Your task to perform on an android device: turn off smart reply in the gmail app Image 0: 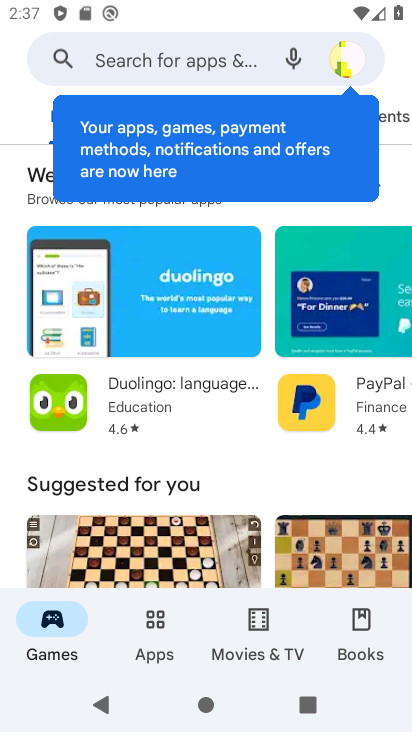
Step 0: press back button
Your task to perform on an android device: turn off smart reply in the gmail app Image 1: 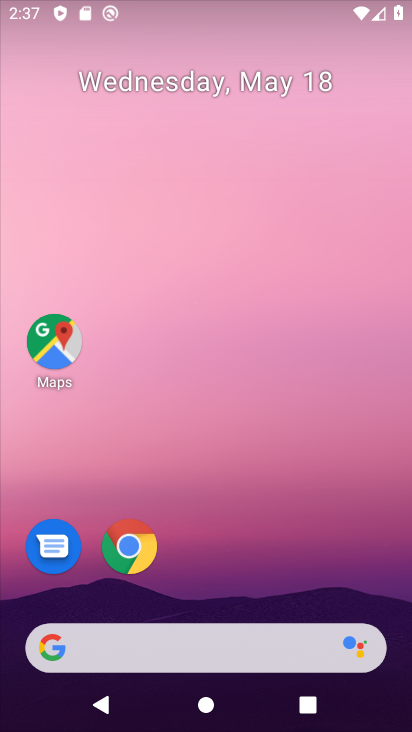
Step 1: drag from (270, 695) to (245, 227)
Your task to perform on an android device: turn off smart reply in the gmail app Image 2: 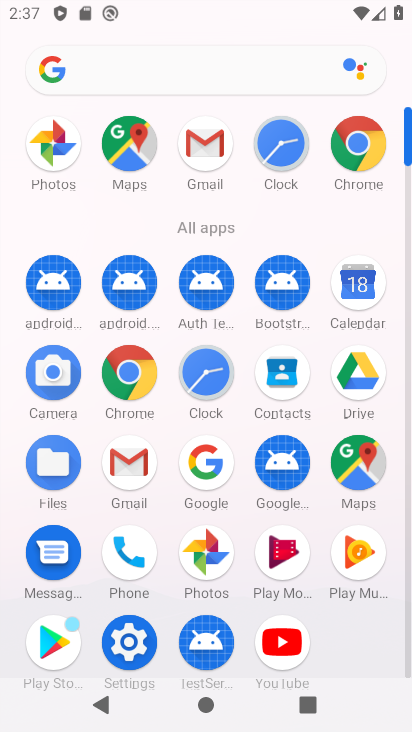
Step 2: click (198, 149)
Your task to perform on an android device: turn off smart reply in the gmail app Image 3: 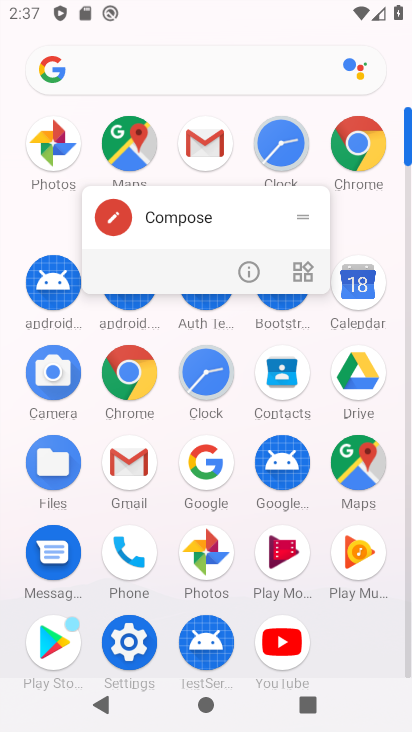
Step 3: click (199, 149)
Your task to perform on an android device: turn off smart reply in the gmail app Image 4: 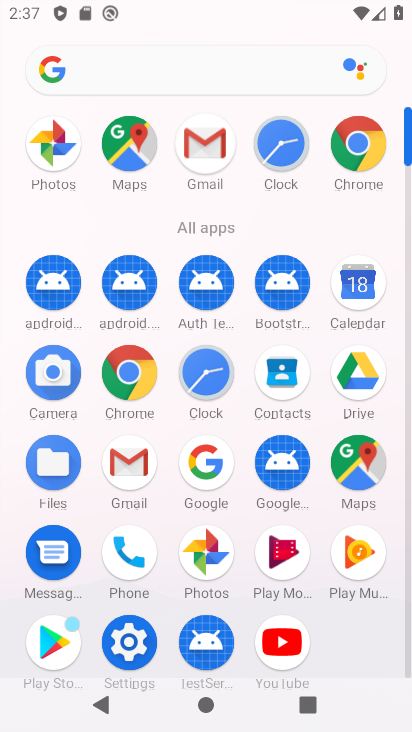
Step 4: click (199, 149)
Your task to perform on an android device: turn off smart reply in the gmail app Image 5: 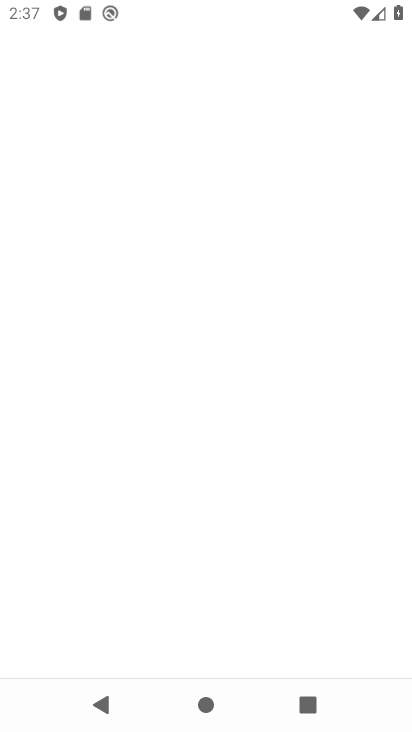
Step 5: click (197, 147)
Your task to perform on an android device: turn off smart reply in the gmail app Image 6: 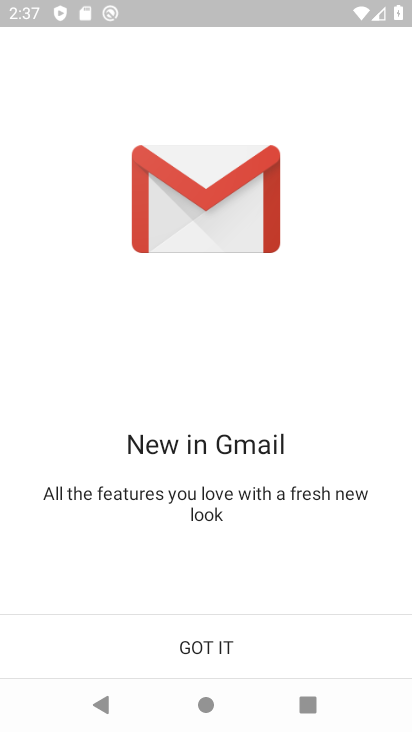
Step 6: click (202, 639)
Your task to perform on an android device: turn off smart reply in the gmail app Image 7: 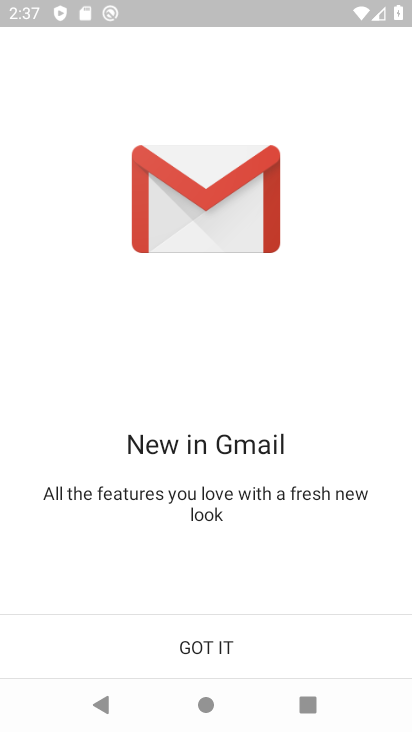
Step 7: click (202, 639)
Your task to perform on an android device: turn off smart reply in the gmail app Image 8: 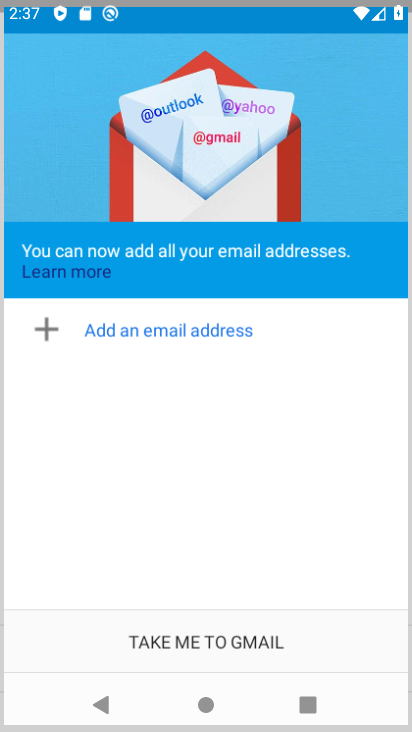
Step 8: click (202, 643)
Your task to perform on an android device: turn off smart reply in the gmail app Image 9: 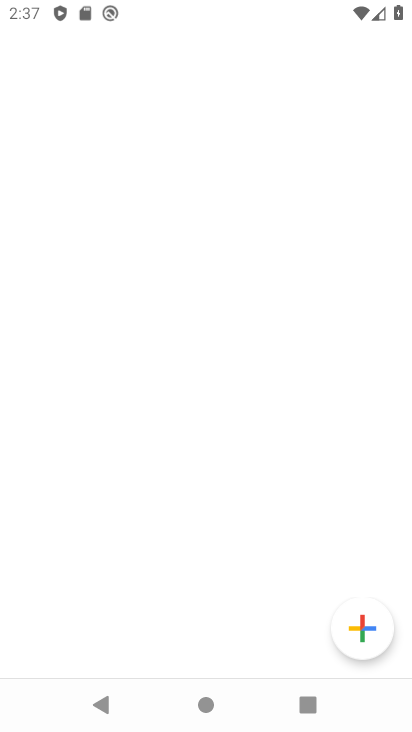
Step 9: click (204, 649)
Your task to perform on an android device: turn off smart reply in the gmail app Image 10: 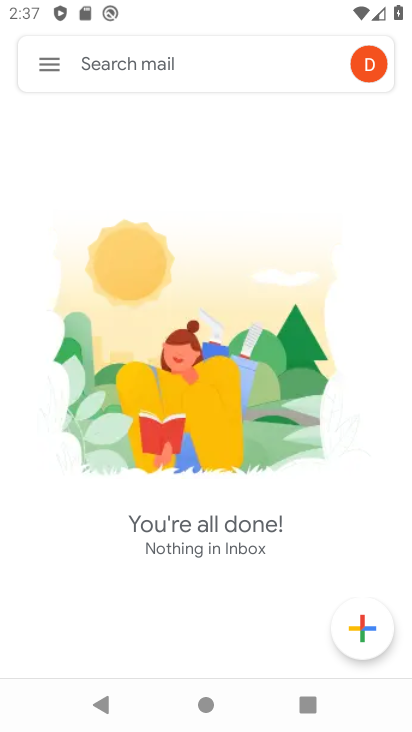
Step 10: click (49, 69)
Your task to perform on an android device: turn off smart reply in the gmail app Image 11: 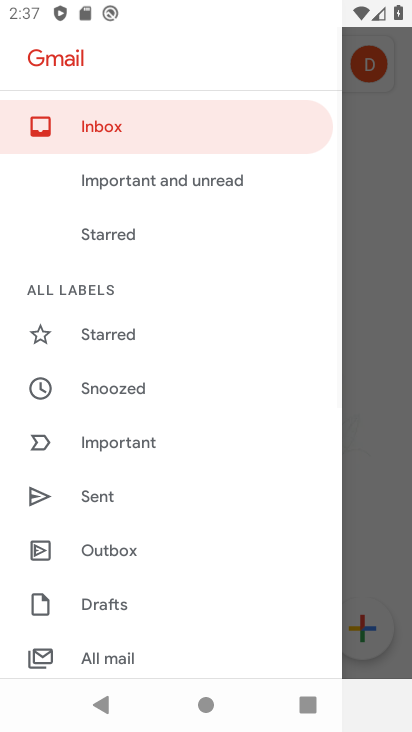
Step 11: drag from (143, 559) to (131, 149)
Your task to perform on an android device: turn off smart reply in the gmail app Image 12: 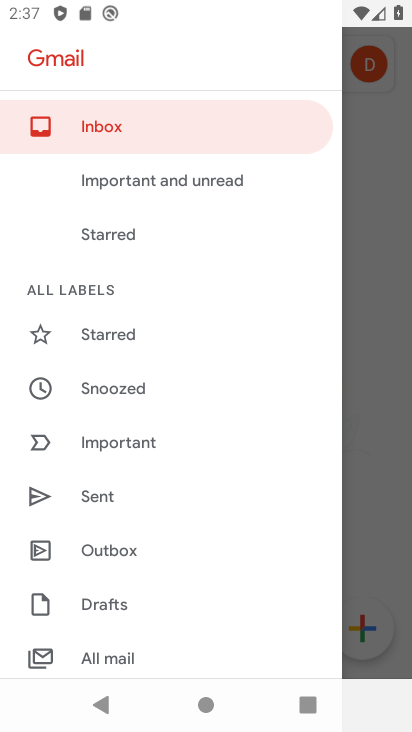
Step 12: drag from (195, 368) to (198, 206)
Your task to perform on an android device: turn off smart reply in the gmail app Image 13: 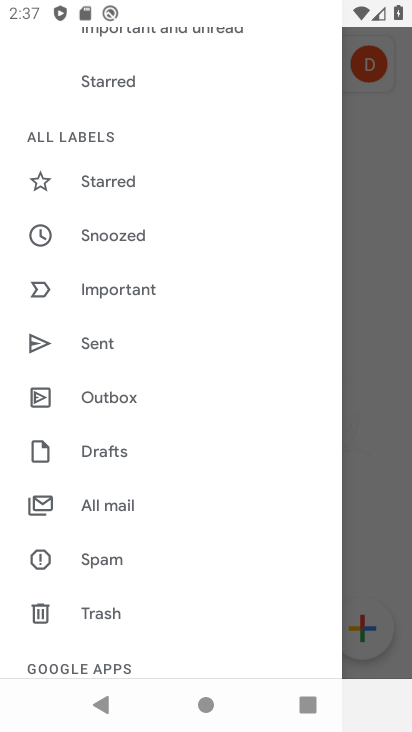
Step 13: drag from (130, 414) to (104, 169)
Your task to perform on an android device: turn off smart reply in the gmail app Image 14: 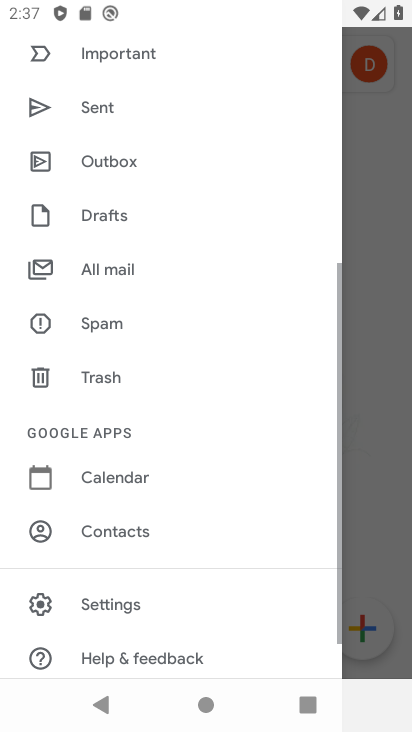
Step 14: drag from (158, 404) to (148, 145)
Your task to perform on an android device: turn off smart reply in the gmail app Image 15: 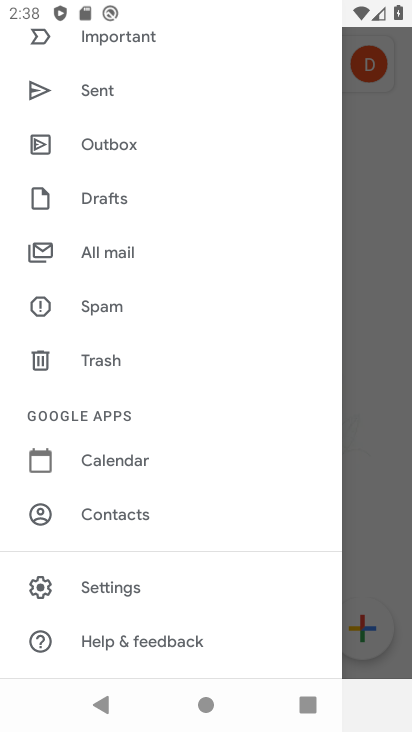
Step 15: click (106, 583)
Your task to perform on an android device: turn off smart reply in the gmail app Image 16: 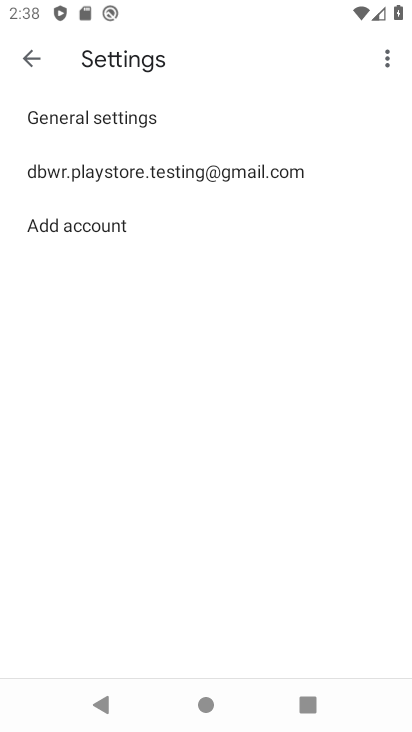
Step 16: click (156, 178)
Your task to perform on an android device: turn off smart reply in the gmail app Image 17: 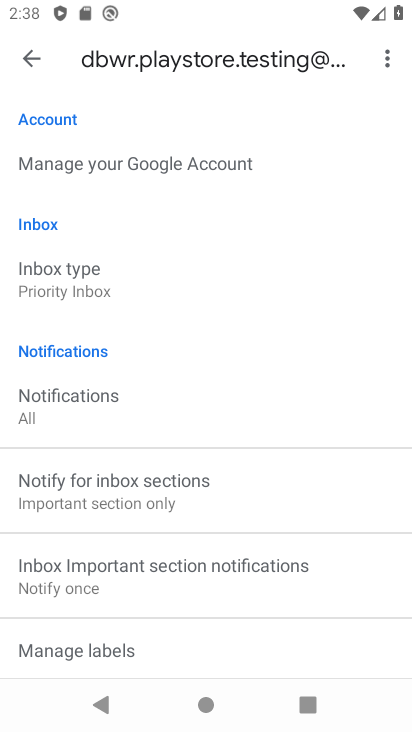
Step 17: drag from (124, 538) to (108, 259)
Your task to perform on an android device: turn off smart reply in the gmail app Image 18: 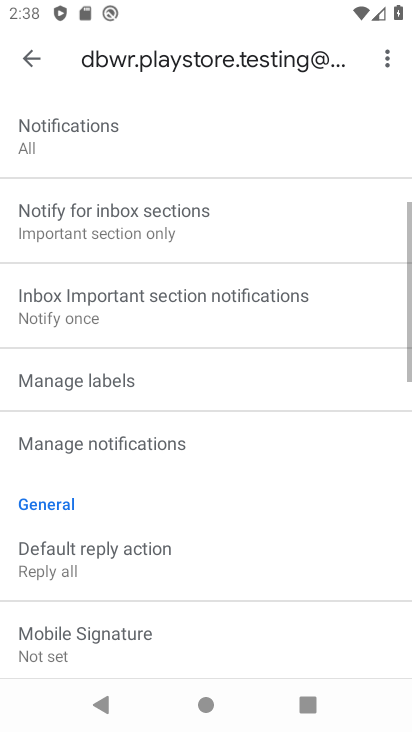
Step 18: drag from (176, 460) to (153, 249)
Your task to perform on an android device: turn off smart reply in the gmail app Image 19: 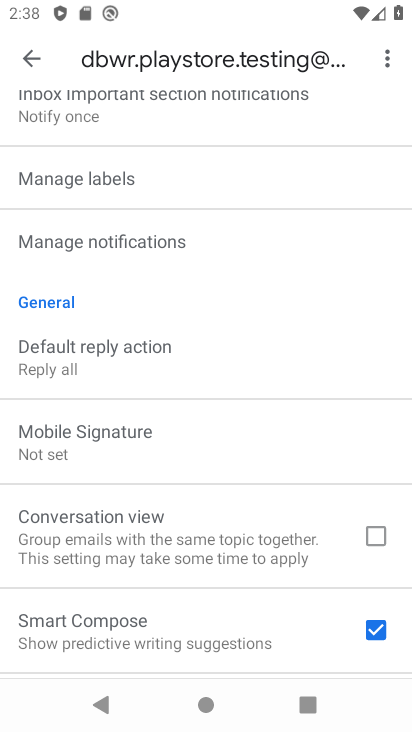
Step 19: drag from (120, 476) to (120, 271)
Your task to perform on an android device: turn off smart reply in the gmail app Image 20: 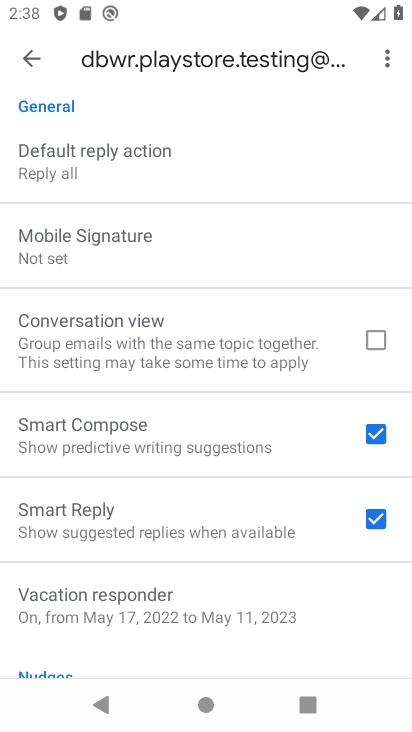
Step 20: click (379, 506)
Your task to perform on an android device: turn off smart reply in the gmail app Image 21: 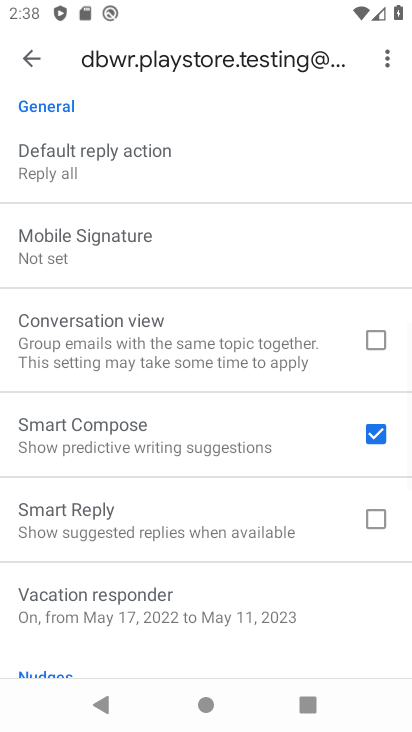
Step 21: task complete